Your task to perform on an android device: Go to Google maps Image 0: 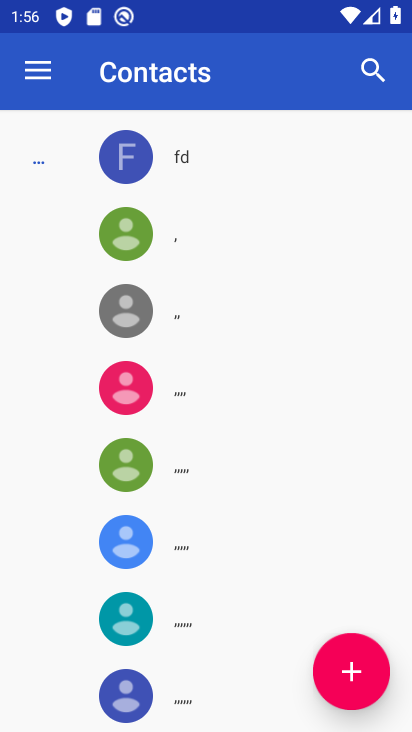
Step 0: press home button
Your task to perform on an android device: Go to Google maps Image 1: 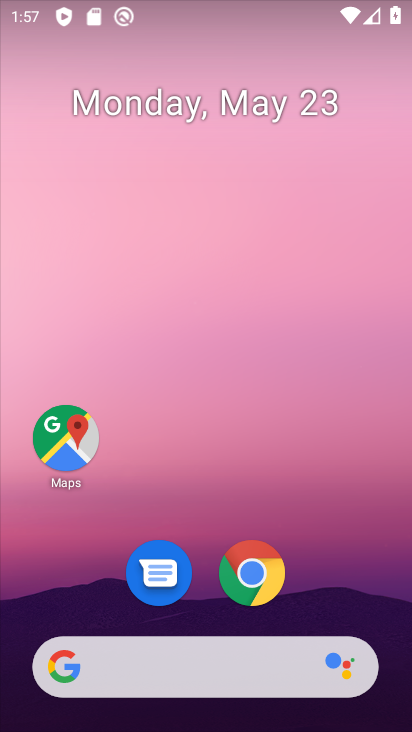
Step 1: click (266, 562)
Your task to perform on an android device: Go to Google maps Image 2: 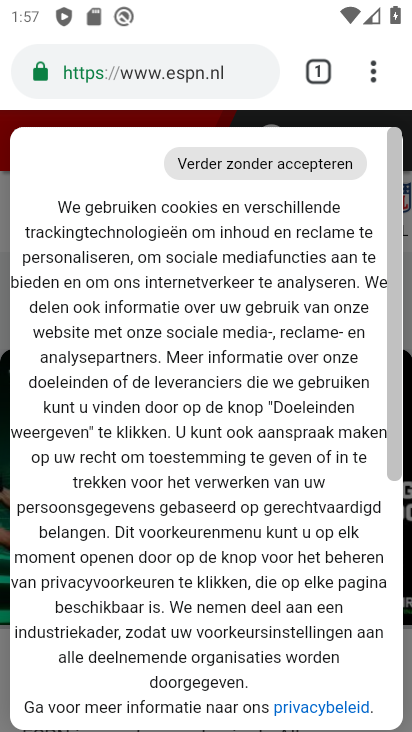
Step 2: task complete